Your task to perform on an android device: Open Wikipedia Image 0: 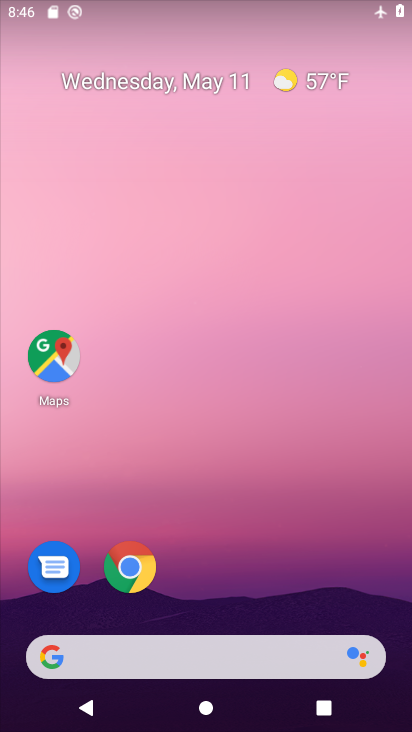
Step 0: click (141, 566)
Your task to perform on an android device: Open Wikipedia Image 1: 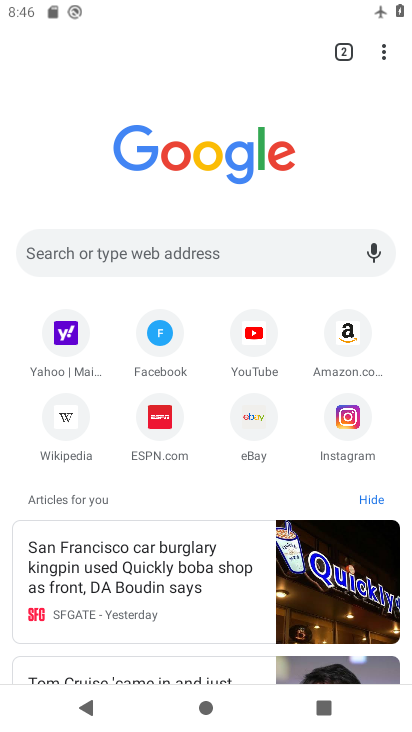
Step 1: click (62, 414)
Your task to perform on an android device: Open Wikipedia Image 2: 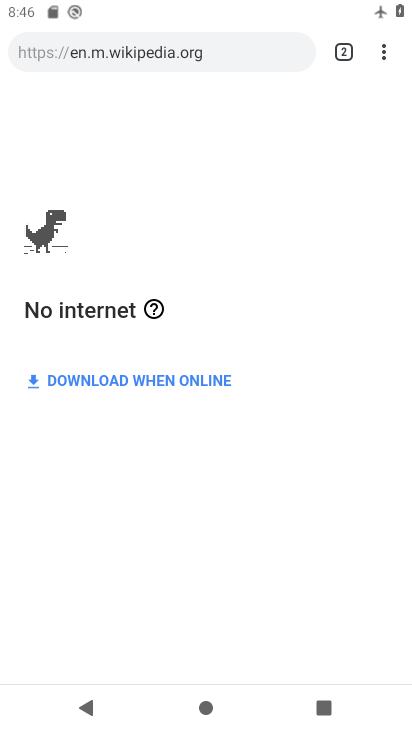
Step 2: task complete